Your task to perform on an android device: check data usage Image 0: 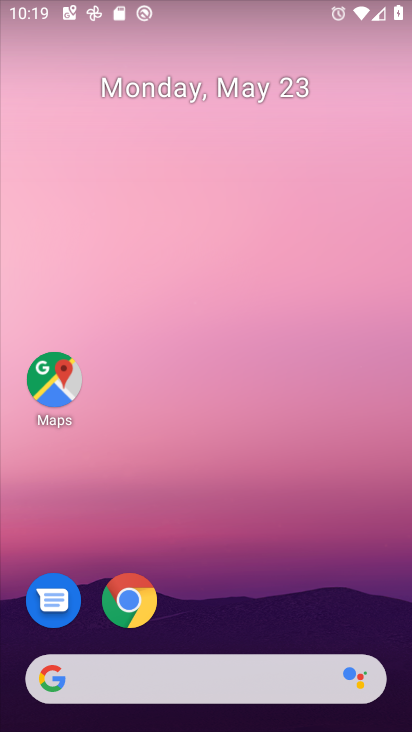
Step 0: drag from (206, 696) to (322, 49)
Your task to perform on an android device: check data usage Image 1: 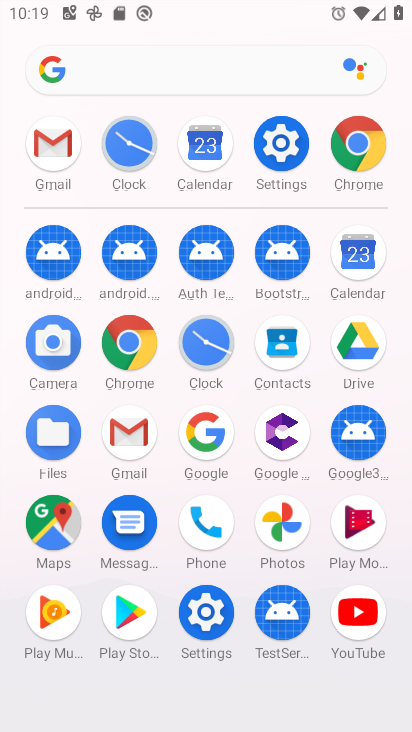
Step 1: click (288, 139)
Your task to perform on an android device: check data usage Image 2: 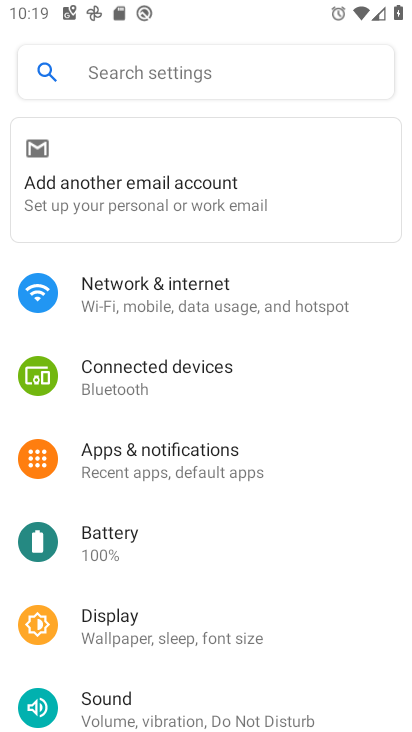
Step 2: click (138, 304)
Your task to perform on an android device: check data usage Image 3: 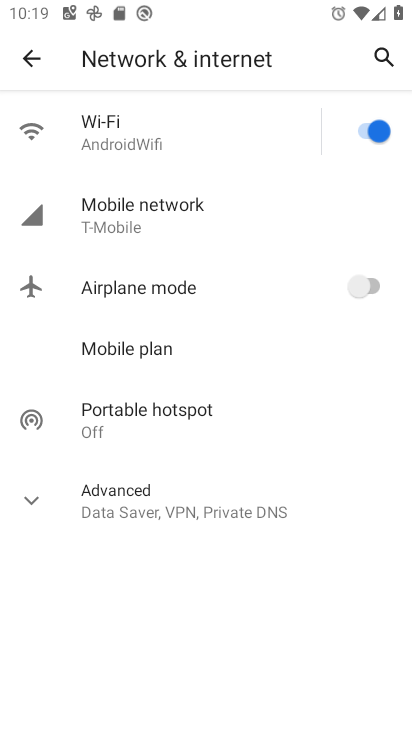
Step 3: click (116, 228)
Your task to perform on an android device: check data usage Image 4: 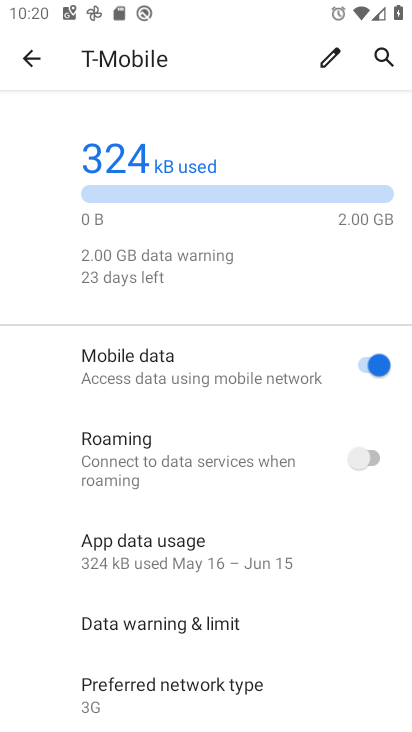
Step 4: click (187, 550)
Your task to perform on an android device: check data usage Image 5: 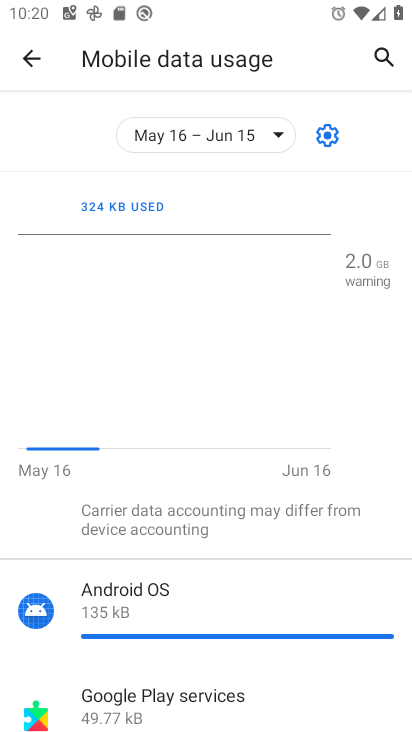
Step 5: task complete